Your task to perform on an android device: show emergency info Image 0: 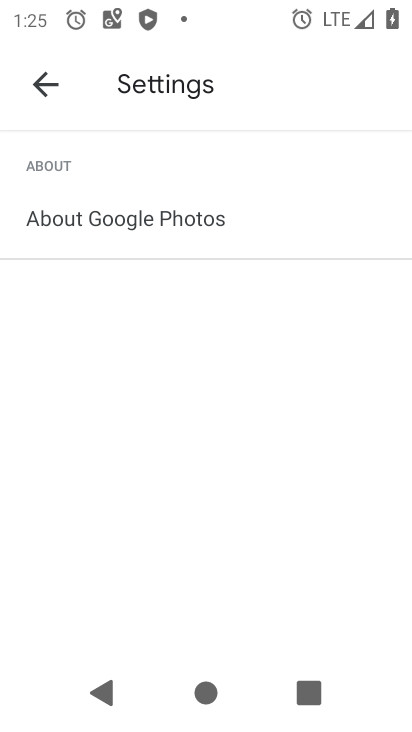
Step 0: press home button
Your task to perform on an android device: show emergency info Image 1: 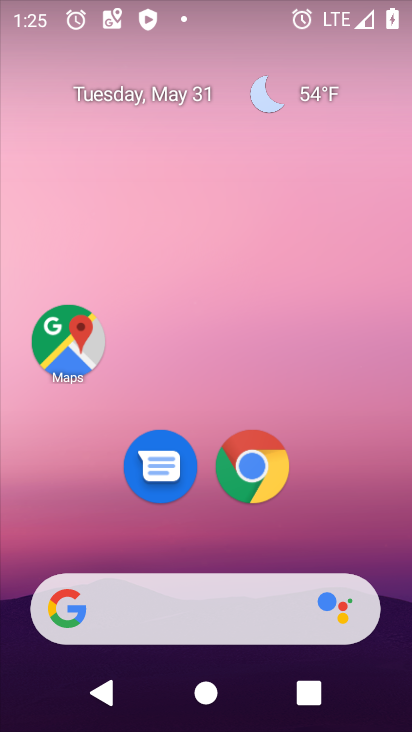
Step 1: drag from (164, 593) to (183, 0)
Your task to perform on an android device: show emergency info Image 2: 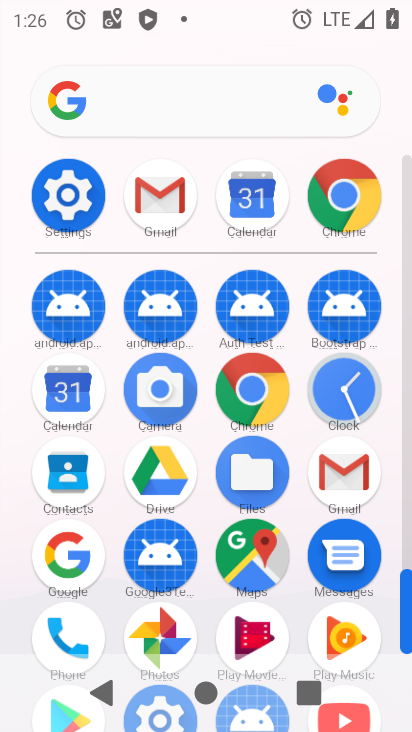
Step 2: click (68, 207)
Your task to perform on an android device: show emergency info Image 3: 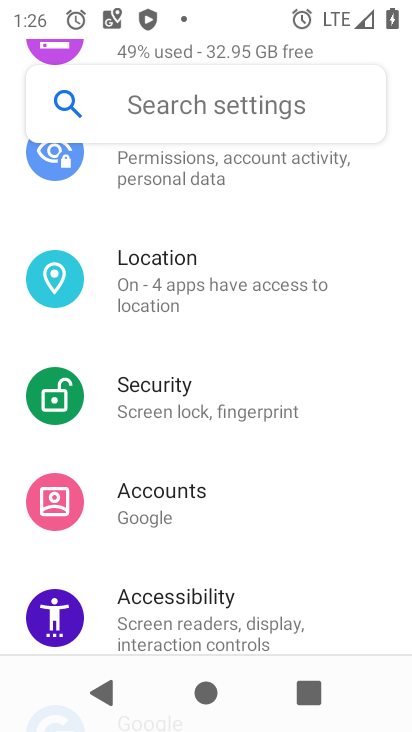
Step 3: drag from (152, 283) to (97, 721)
Your task to perform on an android device: show emergency info Image 4: 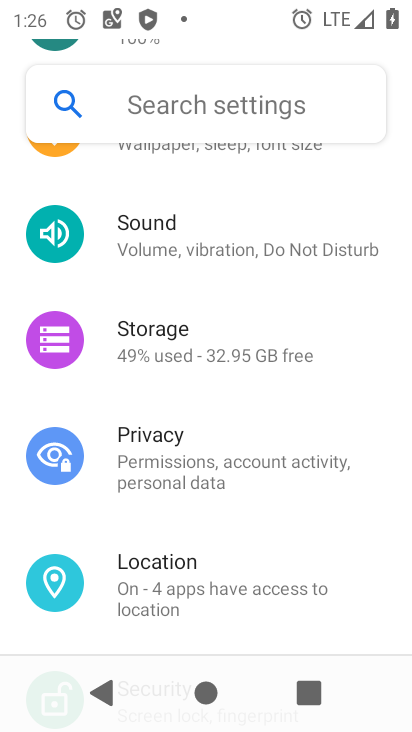
Step 4: drag from (163, 552) to (8, 34)
Your task to perform on an android device: show emergency info Image 5: 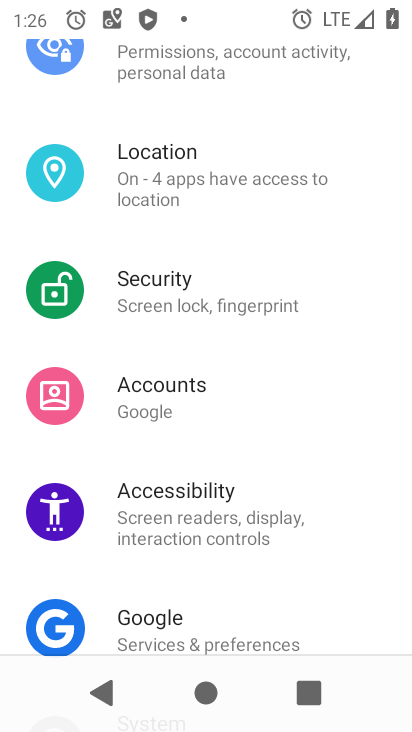
Step 5: drag from (79, 492) to (68, 16)
Your task to perform on an android device: show emergency info Image 6: 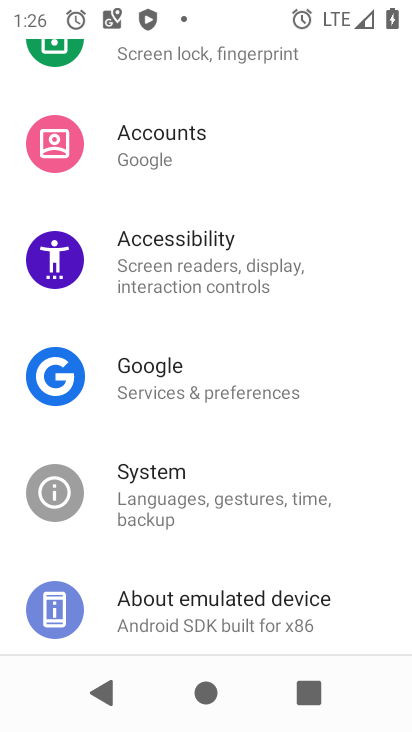
Step 6: click (191, 613)
Your task to perform on an android device: show emergency info Image 7: 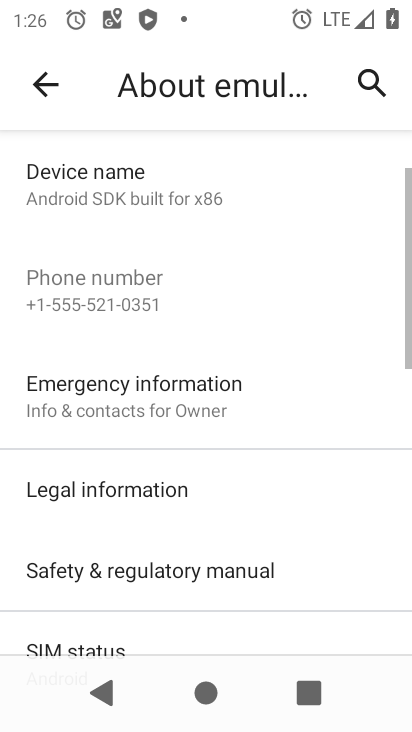
Step 7: click (137, 410)
Your task to perform on an android device: show emergency info Image 8: 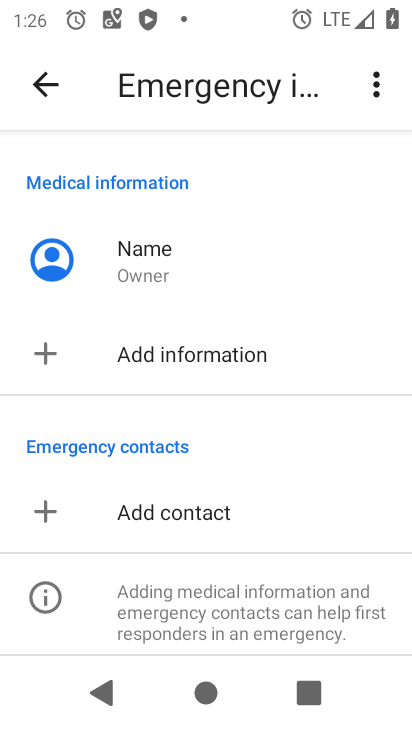
Step 8: task complete